Your task to perform on an android device: toggle sleep mode Image 0: 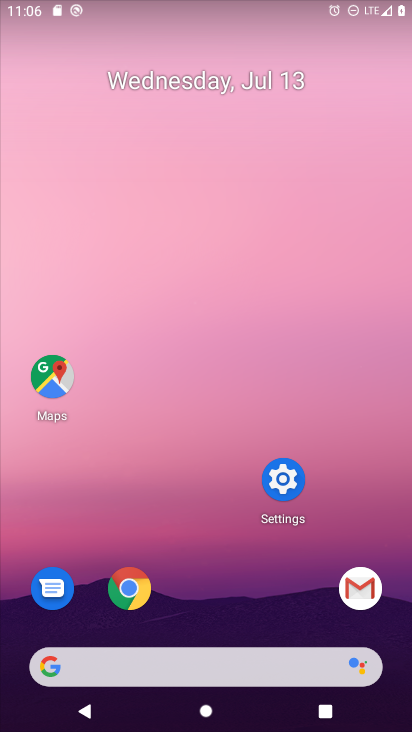
Step 0: click (283, 493)
Your task to perform on an android device: toggle sleep mode Image 1: 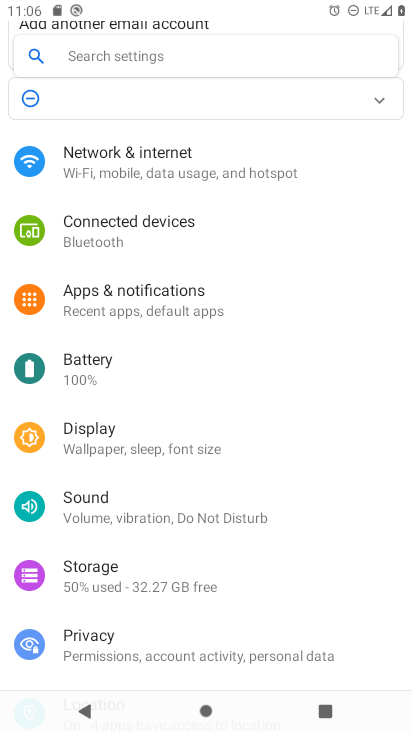
Step 1: click (99, 63)
Your task to perform on an android device: toggle sleep mode Image 2: 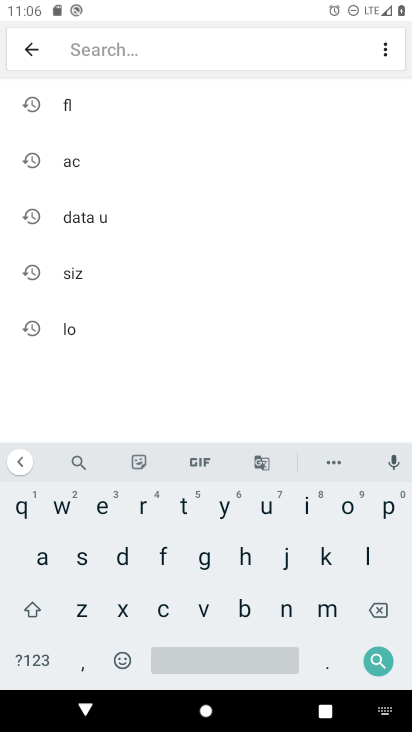
Step 2: click (73, 556)
Your task to perform on an android device: toggle sleep mode Image 3: 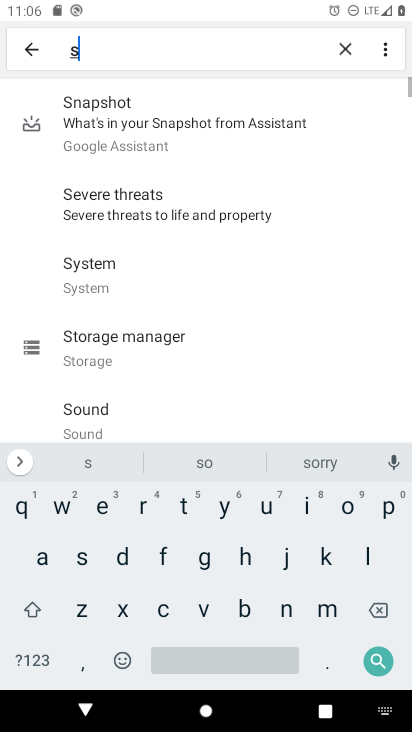
Step 3: click (370, 560)
Your task to perform on an android device: toggle sleep mode Image 4: 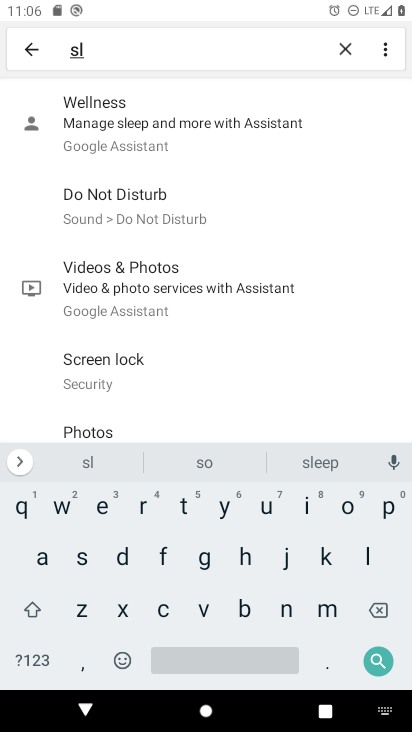
Step 4: click (94, 201)
Your task to perform on an android device: toggle sleep mode Image 5: 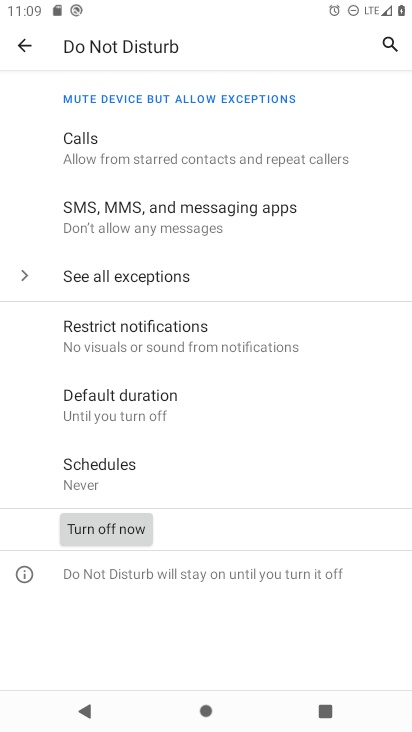
Step 5: task complete